Your task to perform on an android device: Open battery settings Image 0: 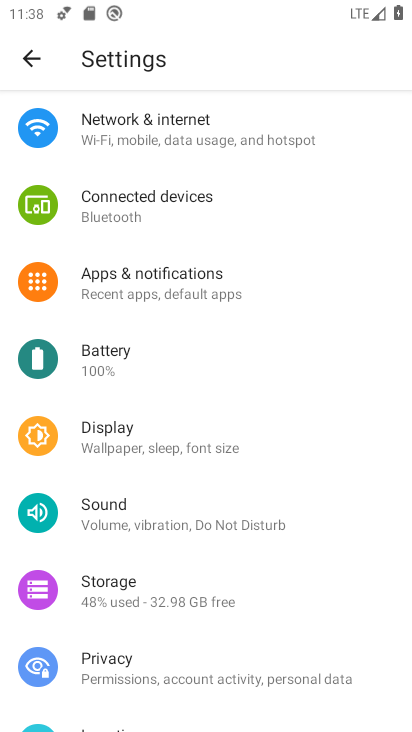
Step 0: click (155, 361)
Your task to perform on an android device: Open battery settings Image 1: 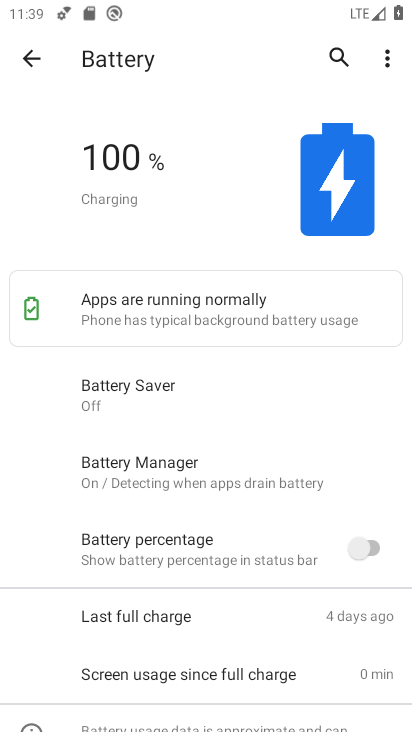
Step 1: task complete